Your task to perform on an android device: toggle notification dots Image 0: 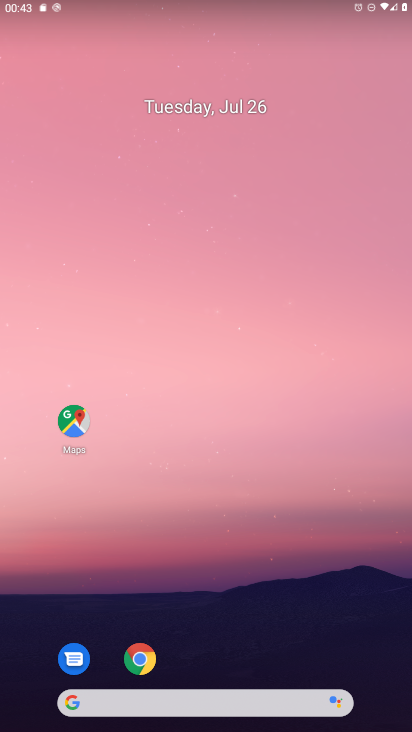
Step 0: drag from (305, 661) to (410, 262)
Your task to perform on an android device: toggle notification dots Image 1: 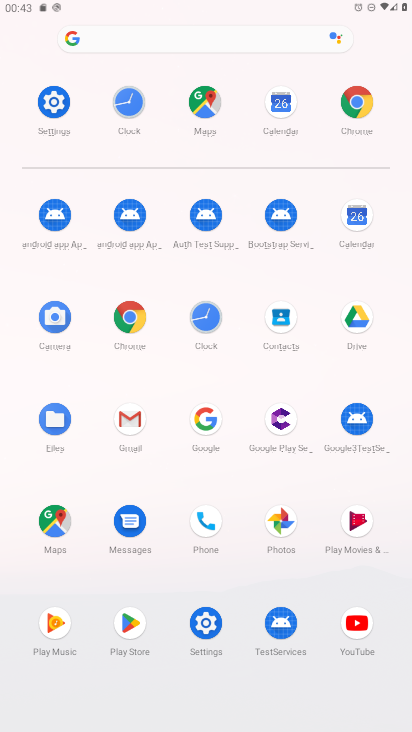
Step 1: click (217, 621)
Your task to perform on an android device: toggle notification dots Image 2: 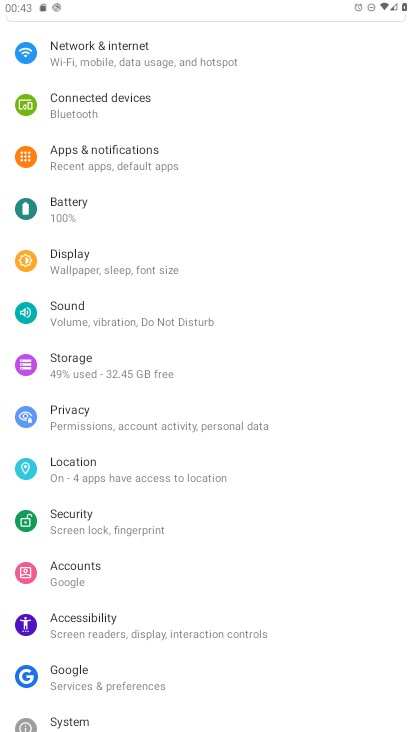
Step 2: click (146, 149)
Your task to perform on an android device: toggle notification dots Image 3: 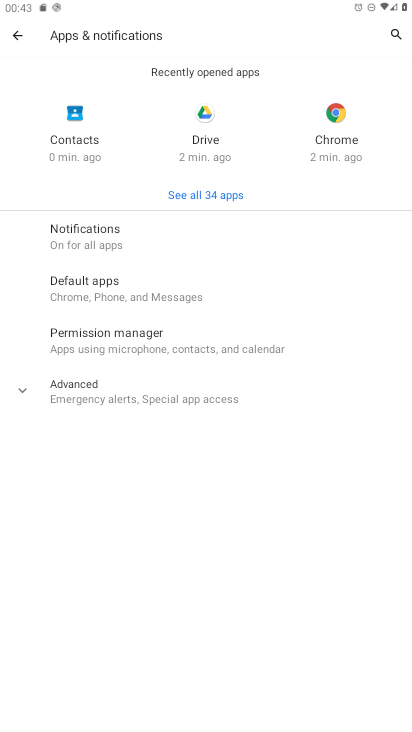
Step 3: click (108, 395)
Your task to perform on an android device: toggle notification dots Image 4: 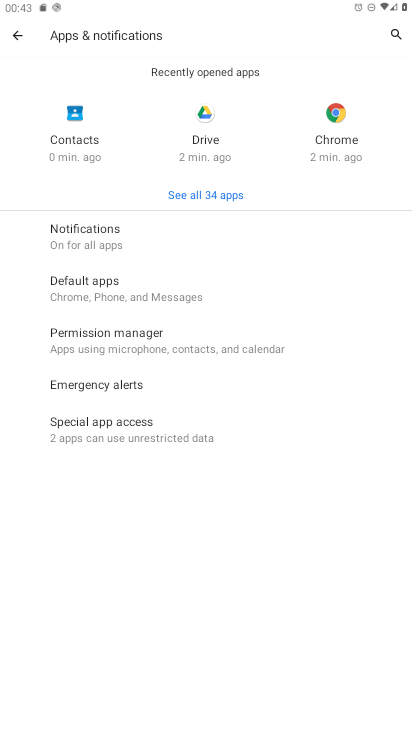
Step 4: click (120, 231)
Your task to perform on an android device: toggle notification dots Image 5: 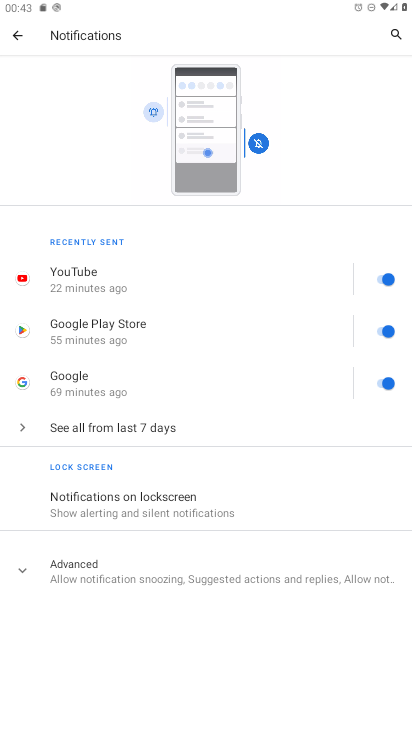
Step 5: click (144, 569)
Your task to perform on an android device: toggle notification dots Image 6: 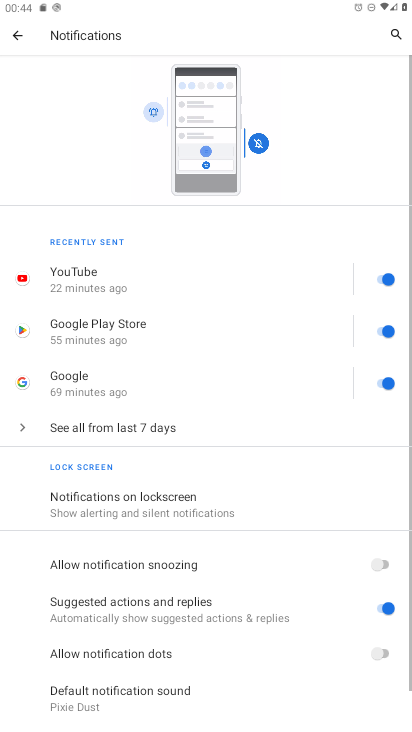
Step 6: drag from (142, 537) to (154, 182)
Your task to perform on an android device: toggle notification dots Image 7: 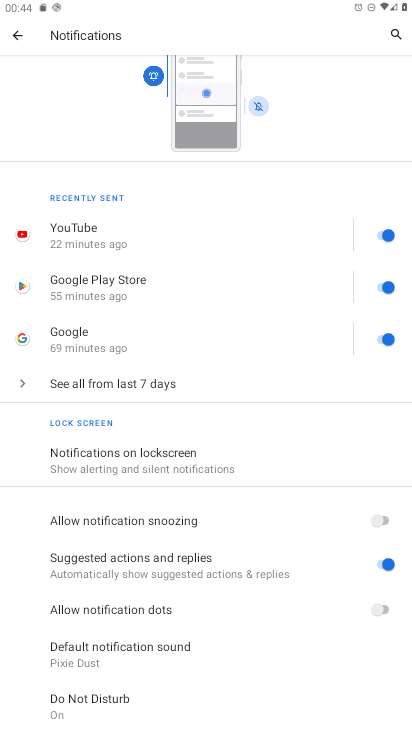
Step 7: click (113, 599)
Your task to perform on an android device: toggle notification dots Image 8: 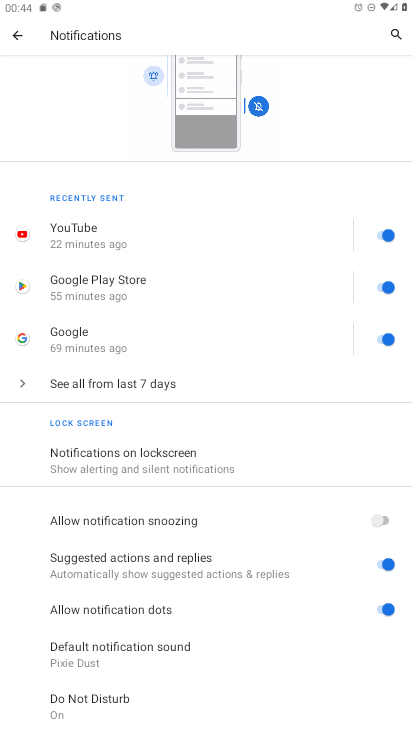
Step 8: task complete